Your task to perform on an android device: Add energizer triple a to the cart on ebay Image 0: 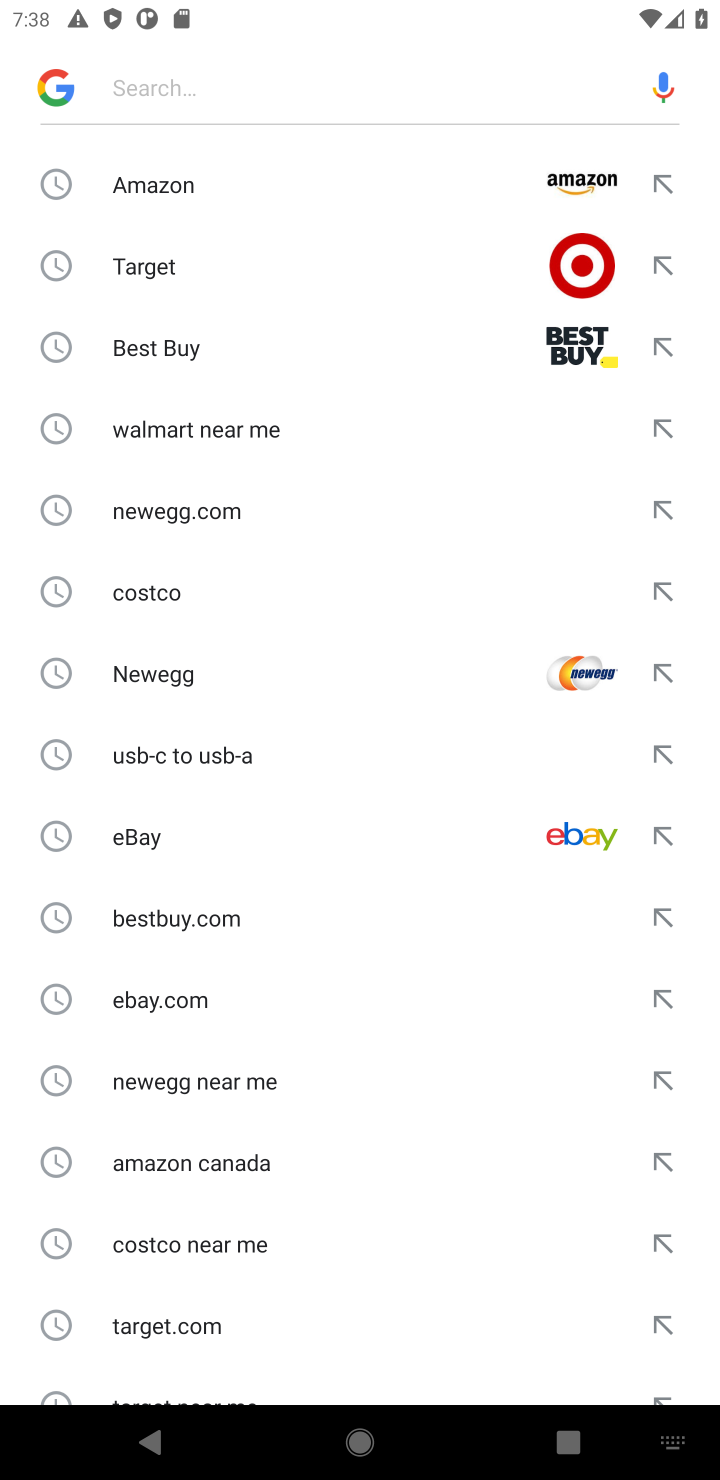
Step 0: click (325, 860)
Your task to perform on an android device: Add energizer triple a to the cart on ebay Image 1: 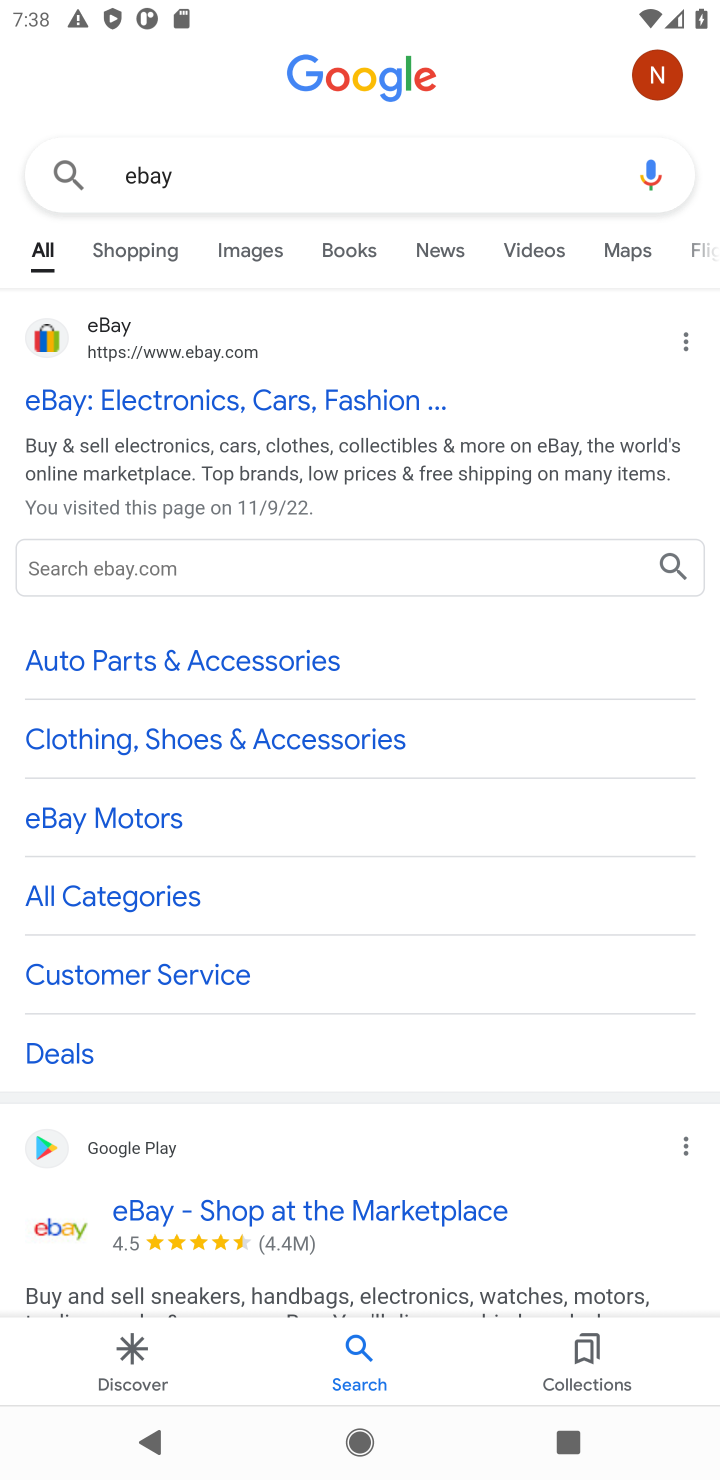
Step 1: click (185, 435)
Your task to perform on an android device: Add energizer triple a to the cart on ebay Image 2: 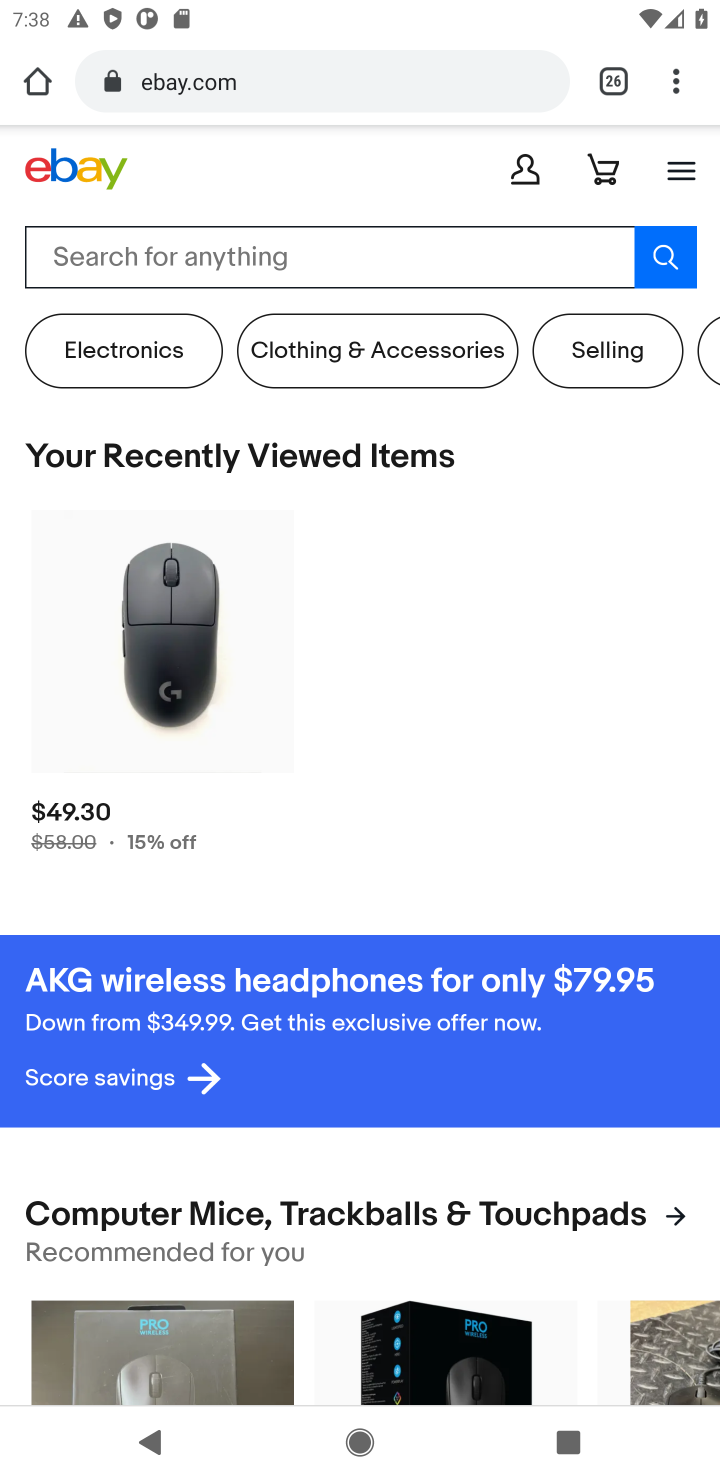
Step 2: task complete